Your task to perform on an android device: manage bookmarks in the chrome app Image 0: 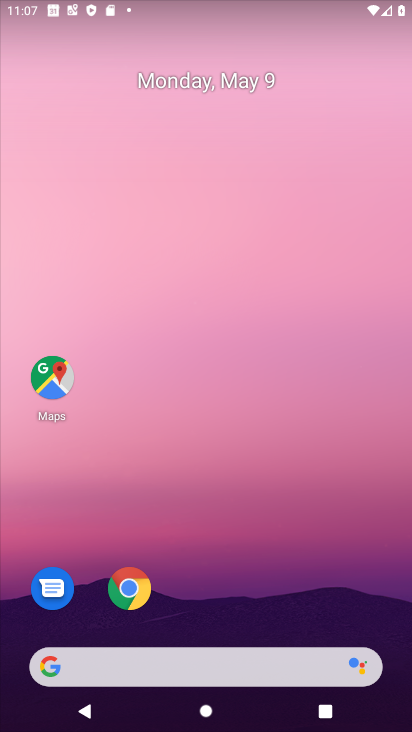
Step 0: click (130, 574)
Your task to perform on an android device: manage bookmarks in the chrome app Image 1: 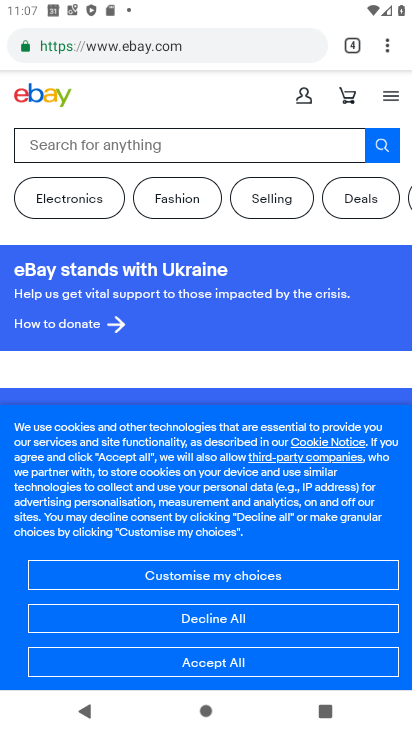
Step 1: click (381, 44)
Your task to perform on an android device: manage bookmarks in the chrome app Image 2: 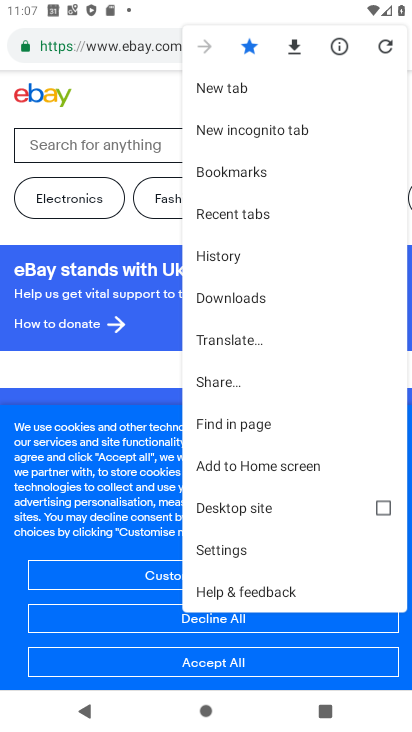
Step 2: click (217, 164)
Your task to perform on an android device: manage bookmarks in the chrome app Image 3: 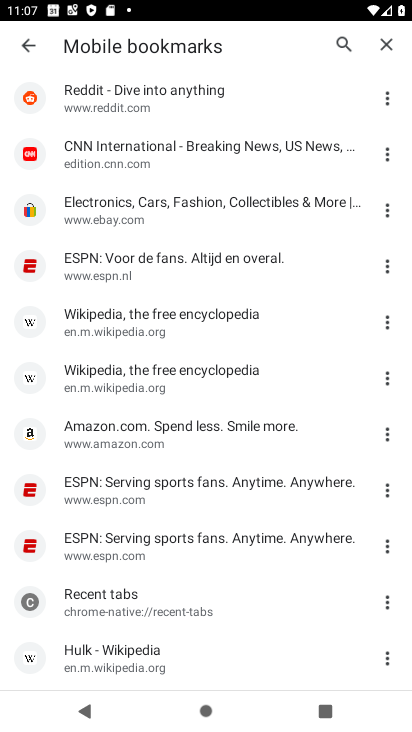
Step 3: drag from (182, 440) to (183, 160)
Your task to perform on an android device: manage bookmarks in the chrome app Image 4: 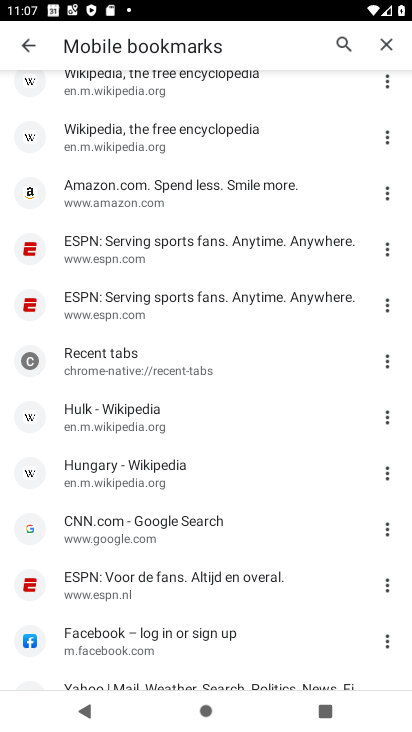
Step 4: click (385, 263)
Your task to perform on an android device: manage bookmarks in the chrome app Image 5: 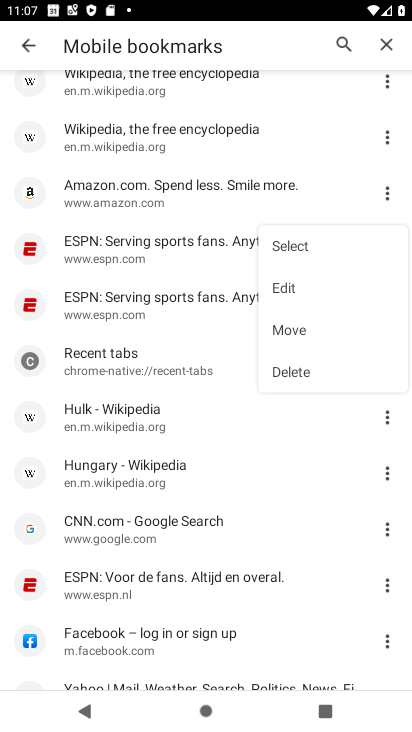
Step 5: click (310, 273)
Your task to perform on an android device: manage bookmarks in the chrome app Image 6: 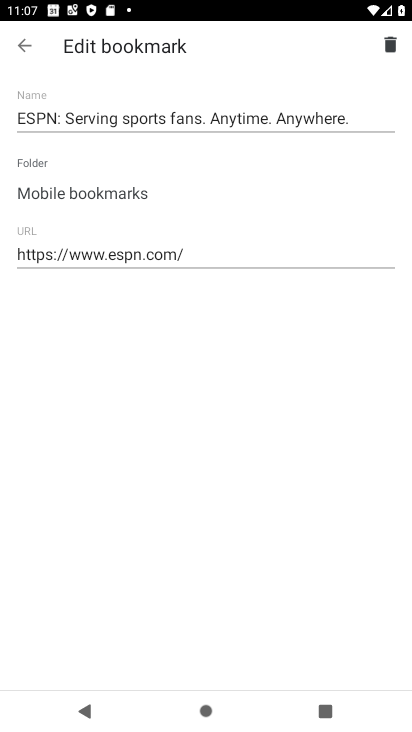
Step 6: task complete